Your task to perform on an android device: open a bookmark in the chrome app Image 0: 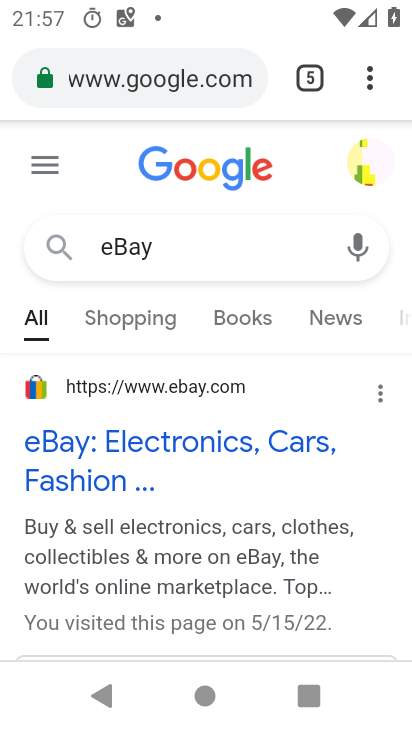
Step 0: click (371, 73)
Your task to perform on an android device: open a bookmark in the chrome app Image 1: 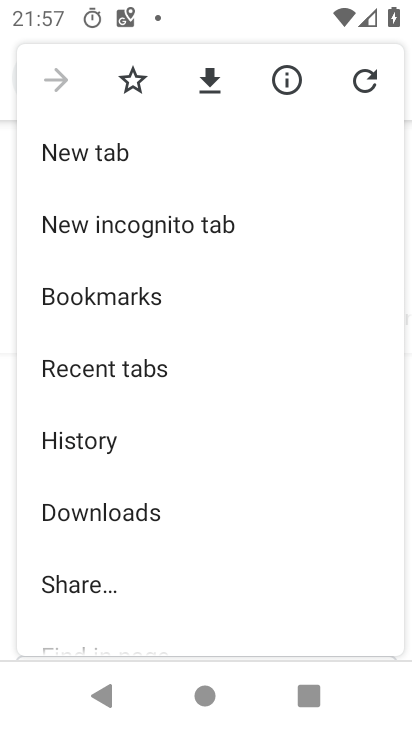
Step 1: drag from (305, 594) to (305, 287)
Your task to perform on an android device: open a bookmark in the chrome app Image 2: 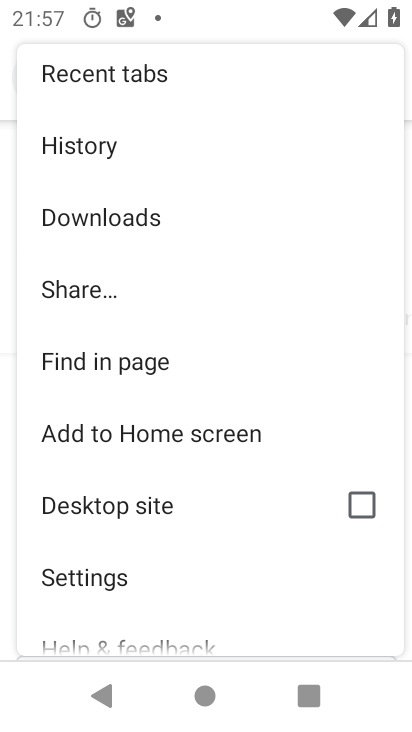
Step 2: drag from (279, 169) to (301, 458)
Your task to perform on an android device: open a bookmark in the chrome app Image 3: 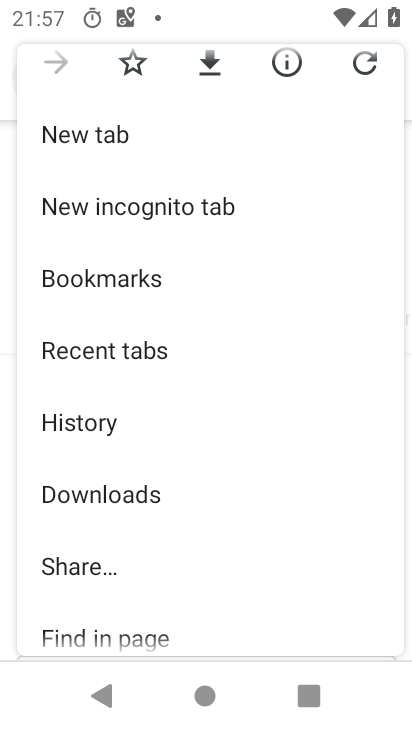
Step 3: click (96, 279)
Your task to perform on an android device: open a bookmark in the chrome app Image 4: 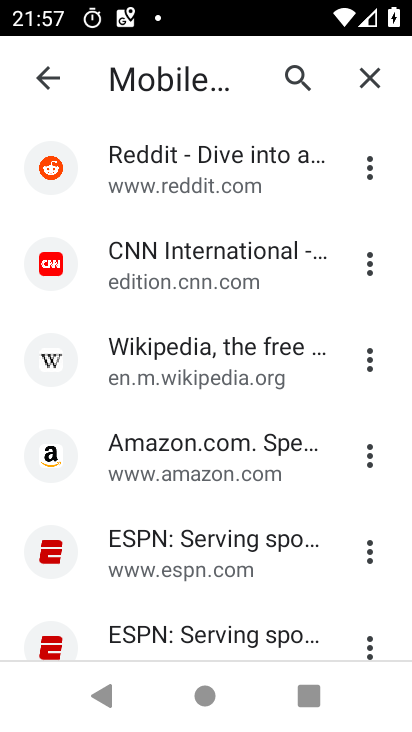
Step 4: click (172, 340)
Your task to perform on an android device: open a bookmark in the chrome app Image 5: 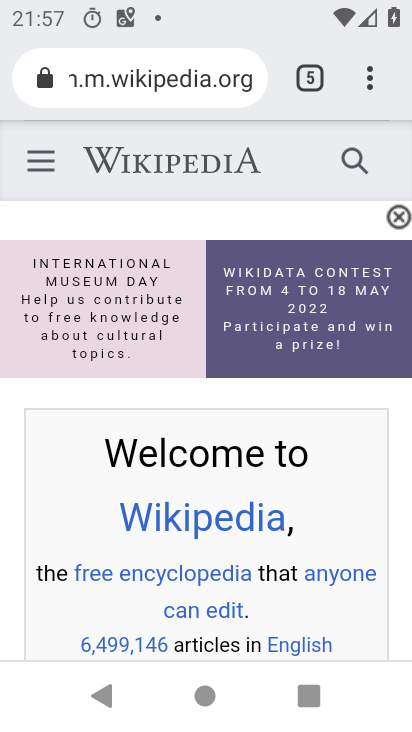
Step 5: task complete